Your task to perform on an android device: Open accessibility settings Image 0: 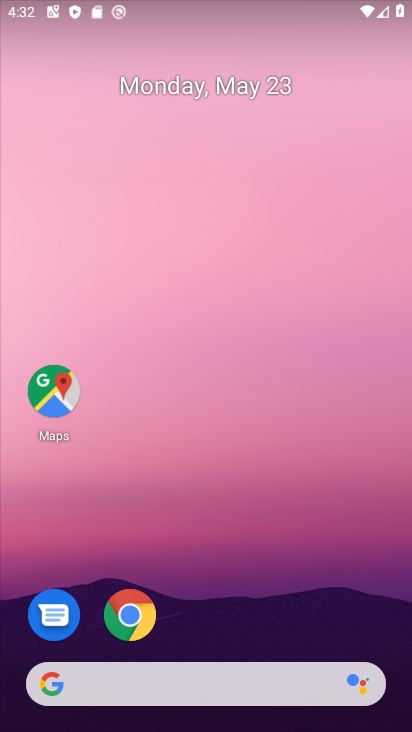
Step 0: drag from (269, 584) to (278, 80)
Your task to perform on an android device: Open accessibility settings Image 1: 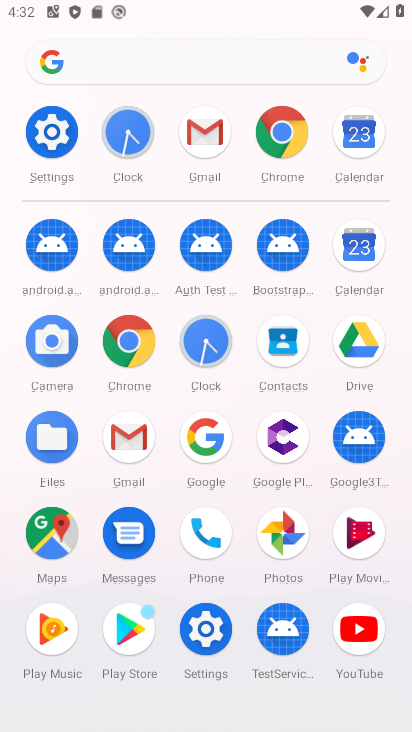
Step 1: click (56, 136)
Your task to perform on an android device: Open accessibility settings Image 2: 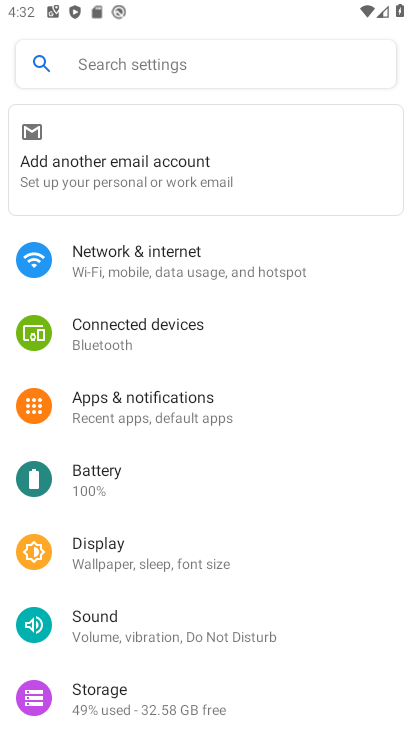
Step 2: drag from (186, 580) to (209, 128)
Your task to perform on an android device: Open accessibility settings Image 3: 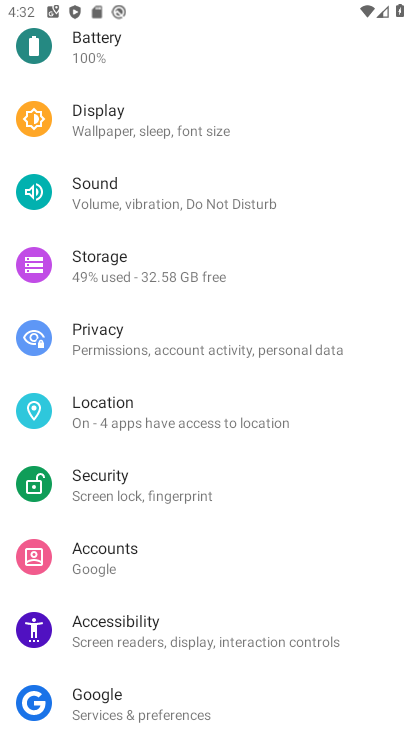
Step 3: click (198, 631)
Your task to perform on an android device: Open accessibility settings Image 4: 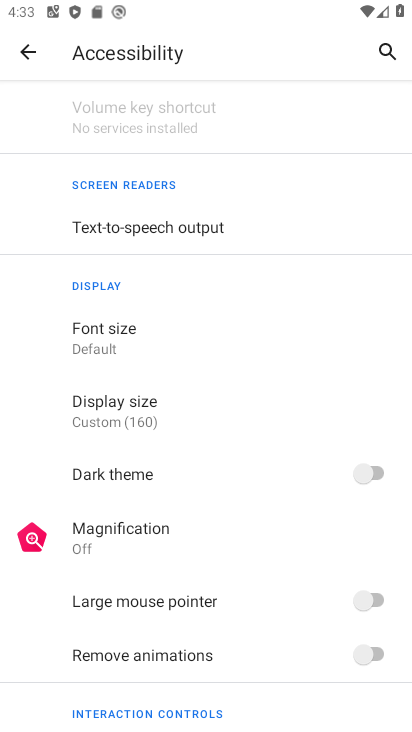
Step 4: task complete